Your task to perform on an android device: move an email to a new category in the gmail app Image 0: 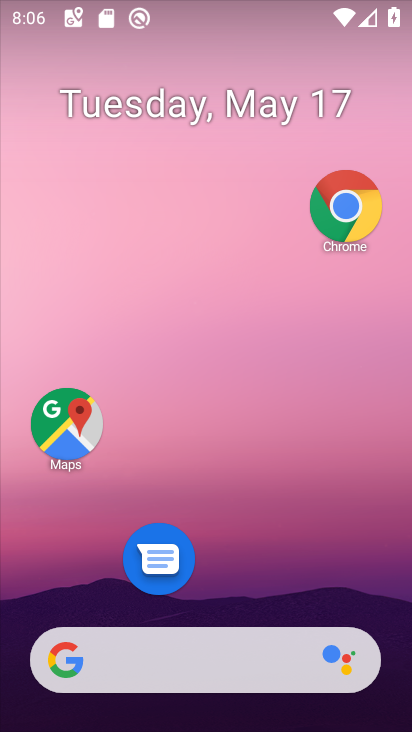
Step 0: drag from (298, 593) to (328, 302)
Your task to perform on an android device: move an email to a new category in the gmail app Image 1: 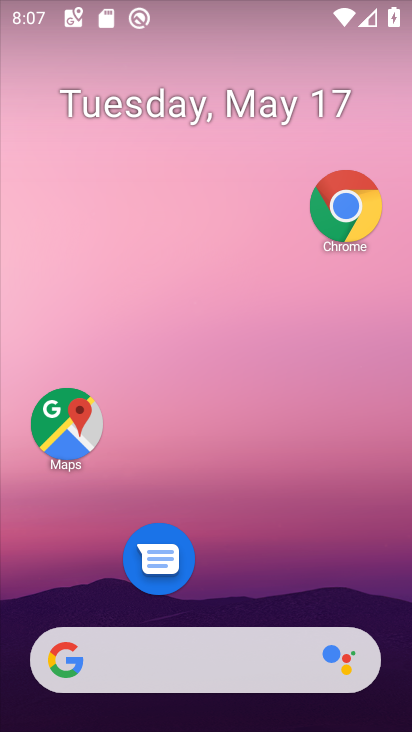
Step 1: drag from (177, 643) to (292, 48)
Your task to perform on an android device: move an email to a new category in the gmail app Image 2: 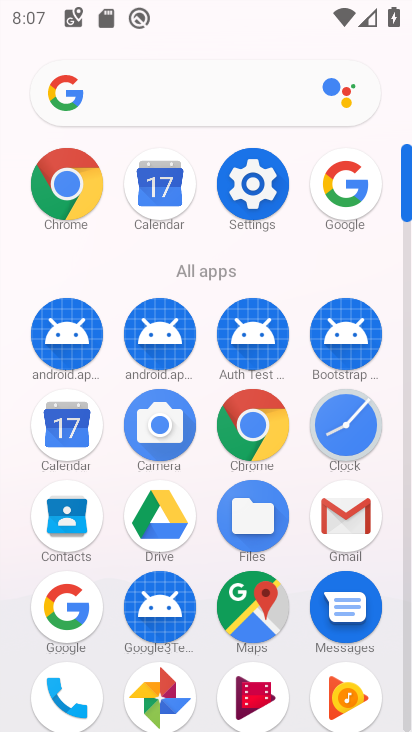
Step 2: click (331, 516)
Your task to perform on an android device: move an email to a new category in the gmail app Image 3: 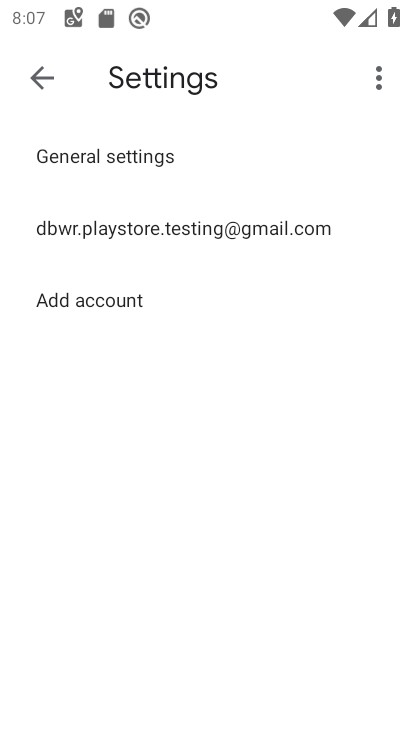
Step 3: click (44, 69)
Your task to perform on an android device: move an email to a new category in the gmail app Image 4: 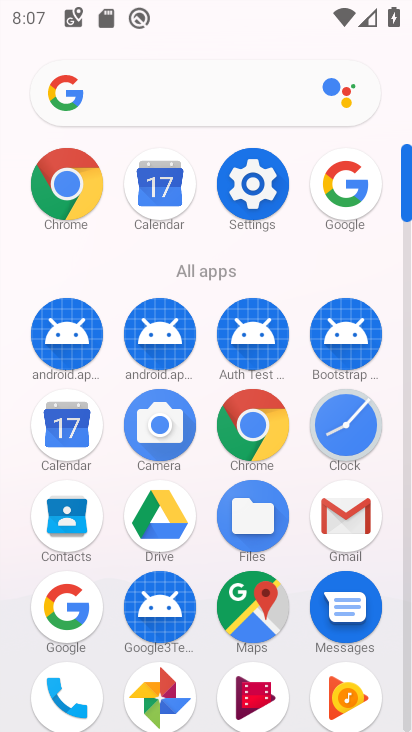
Step 4: click (347, 511)
Your task to perform on an android device: move an email to a new category in the gmail app Image 5: 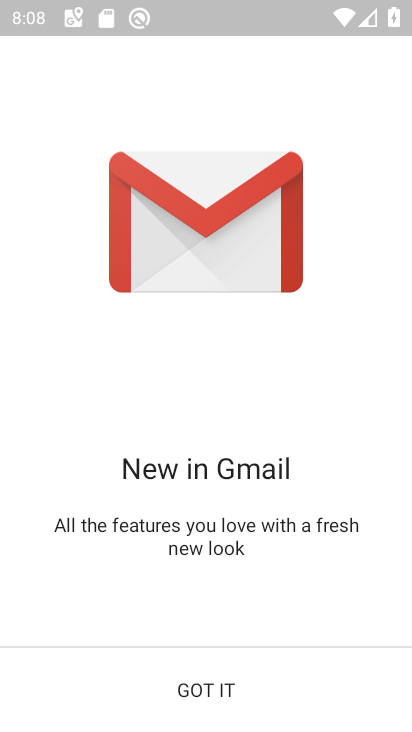
Step 5: click (188, 690)
Your task to perform on an android device: move an email to a new category in the gmail app Image 6: 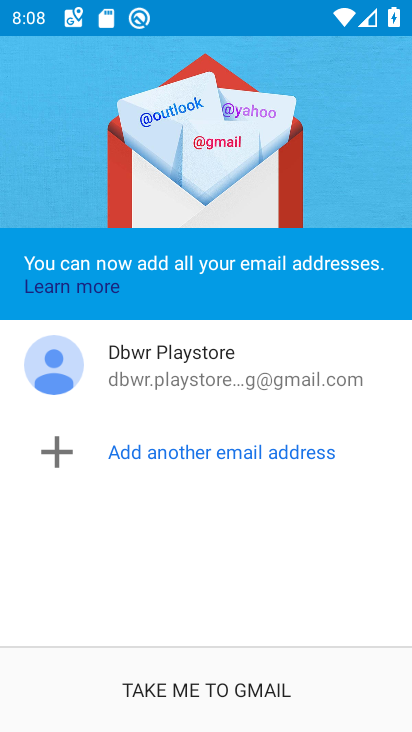
Step 6: click (191, 687)
Your task to perform on an android device: move an email to a new category in the gmail app Image 7: 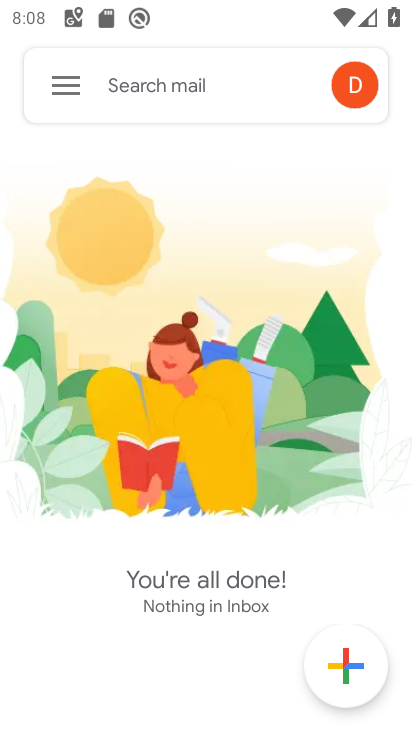
Step 7: click (82, 91)
Your task to perform on an android device: move an email to a new category in the gmail app Image 8: 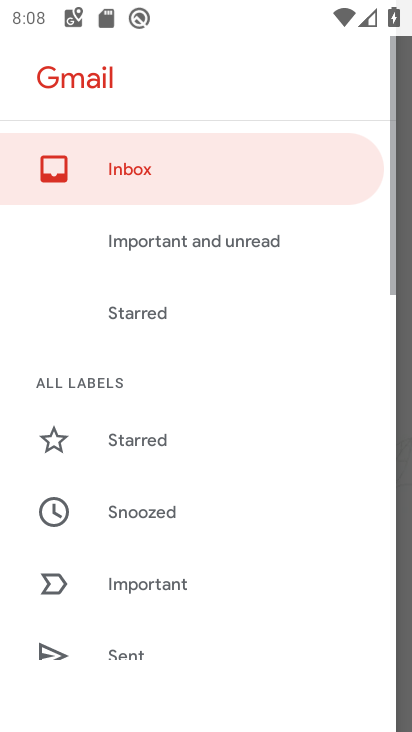
Step 8: drag from (135, 590) to (228, 19)
Your task to perform on an android device: move an email to a new category in the gmail app Image 9: 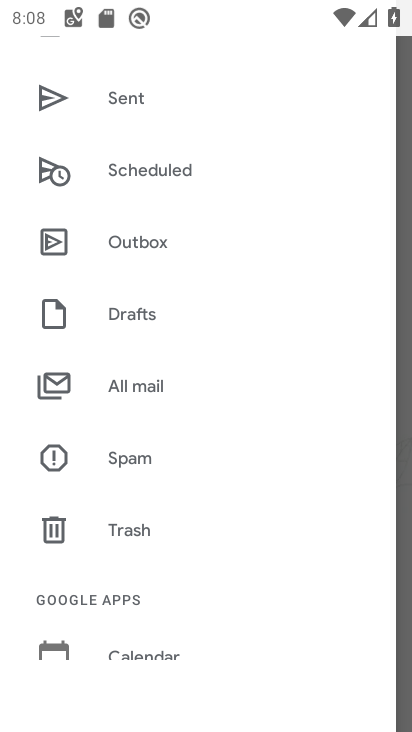
Step 9: click (146, 388)
Your task to perform on an android device: move an email to a new category in the gmail app Image 10: 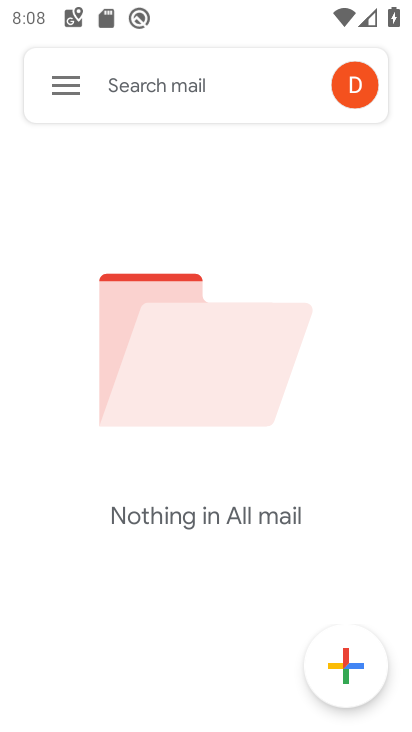
Step 10: task complete